Your task to perform on an android device: Go to wifi settings Image 0: 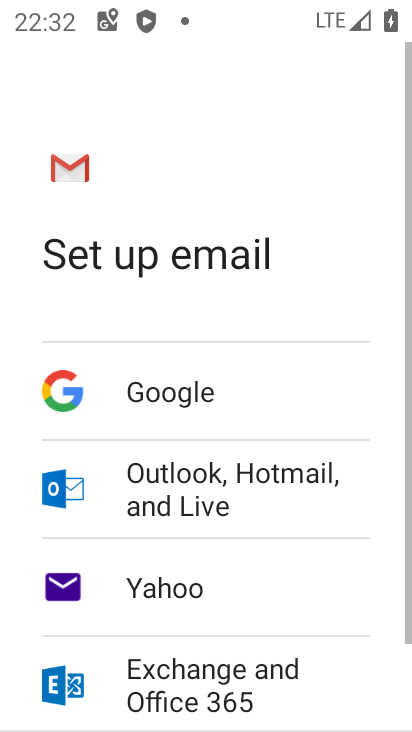
Step 0: press home button
Your task to perform on an android device: Go to wifi settings Image 1: 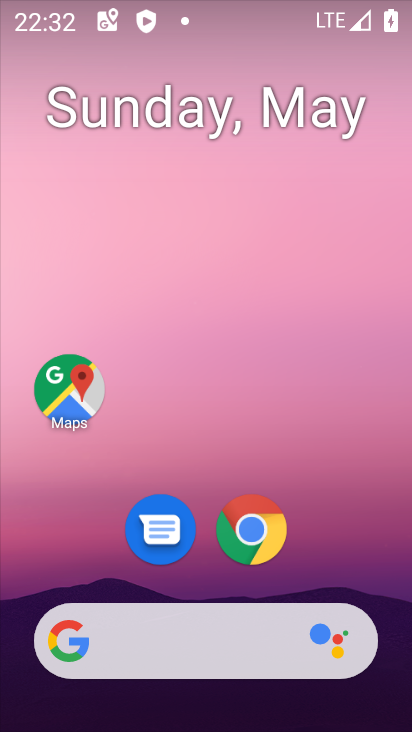
Step 1: drag from (360, 562) to (317, 8)
Your task to perform on an android device: Go to wifi settings Image 2: 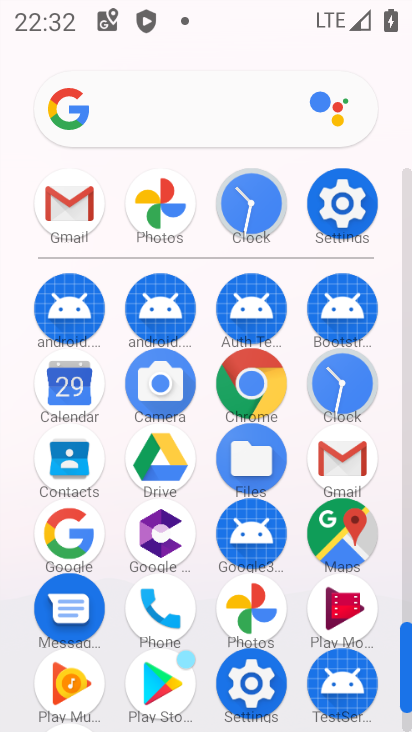
Step 2: click (348, 185)
Your task to perform on an android device: Go to wifi settings Image 3: 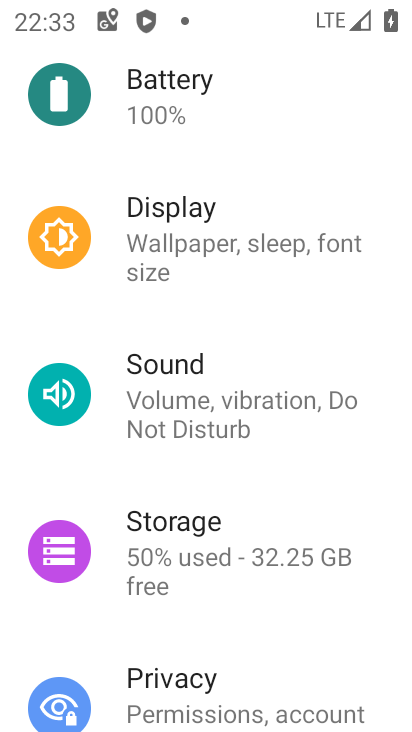
Step 3: drag from (245, 186) to (372, 520)
Your task to perform on an android device: Go to wifi settings Image 4: 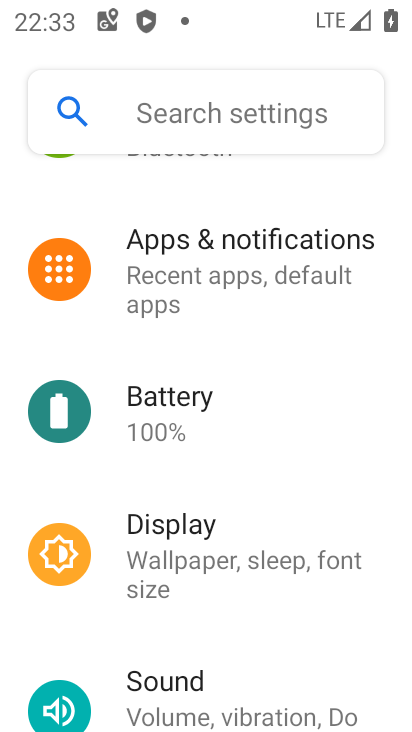
Step 4: drag from (274, 234) to (372, 496)
Your task to perform on an android device: Go to wifi settings Image 5: 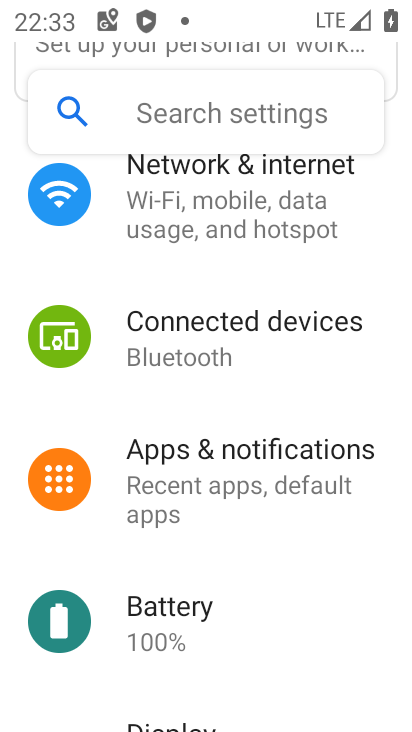
Step 5: click (245, 171)
Your task to perform on an android device: Go to wifi settings Image 6: 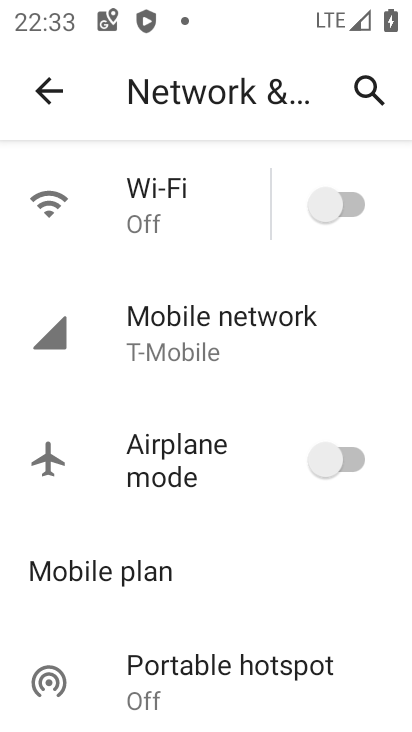
Step 6: click (307, 213)
Your task to perform on an android device: Go to wifi settings Image 7: 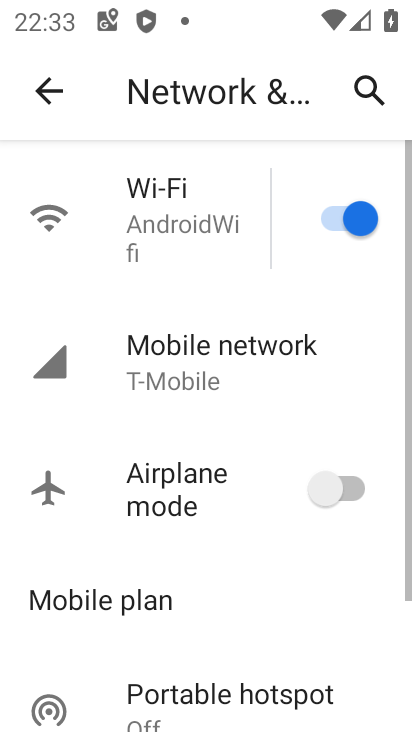
Step 7: task complete